Your task to perform on an android device: delete browsing data in the chrome app Image 0: 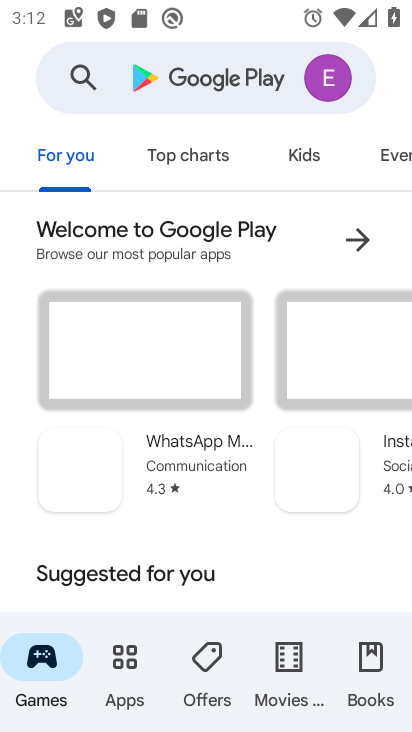
Step 0: press home button
Your task to perform on an android device: delete browsing data in the chrome app Image 1: 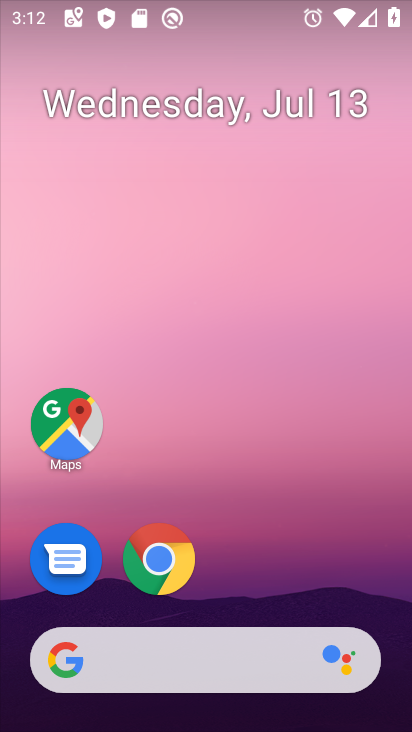
Step 1: drag from (370, 617) to (379, 291)
Your task to perform on an android device: delete browsing data in the chrome app Image 2: 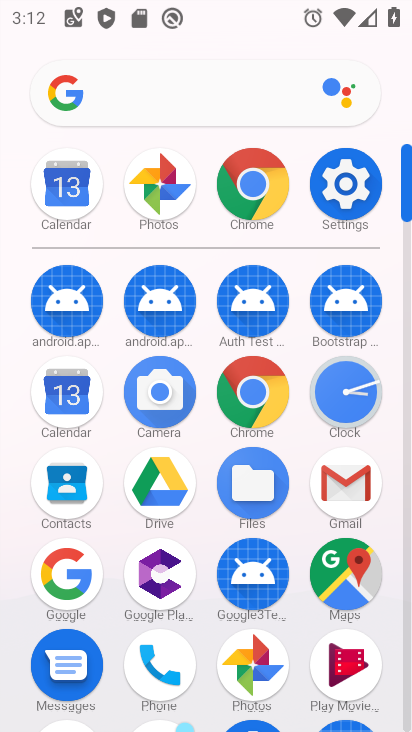
Step 2: click (260, 394)
Your task to perform on an android device: delete browsing data in the chrome app Image 3: 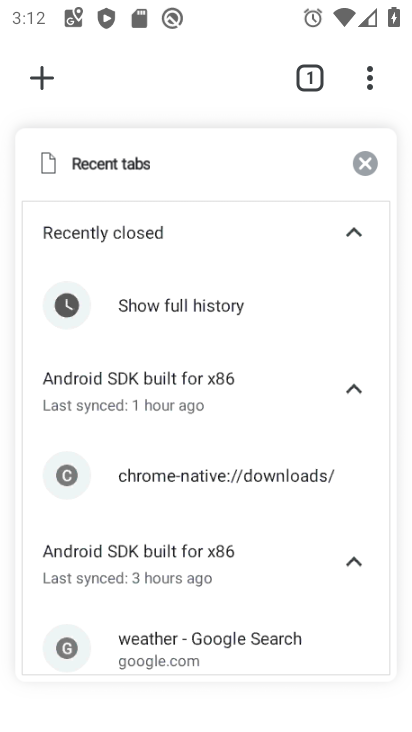
Step 3: press back button
Your task to perform on an android device: delete browsing data in the chrome app Image 4: 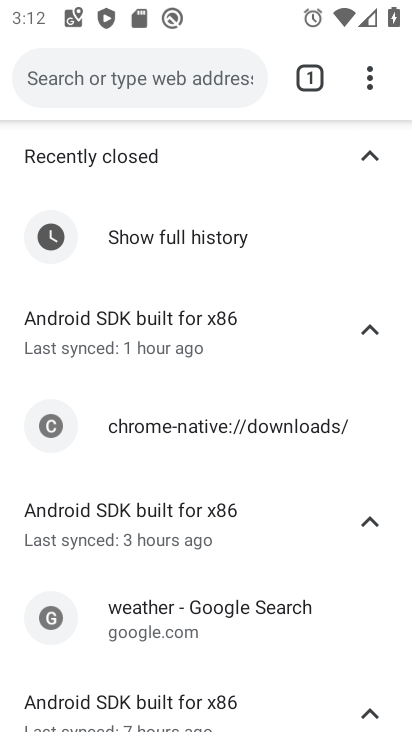
Step 4: click (365, 84)
Your task to perform on an android device: delete browsing data in the chrome app Image 5: 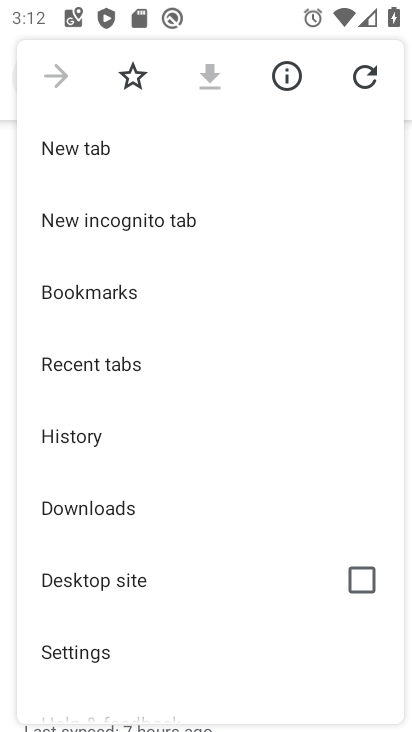
Step 5: drag from (313, 612) to (296, 456)
Your task to perform on an android device: delete browsing data in the chrome app Image 6: 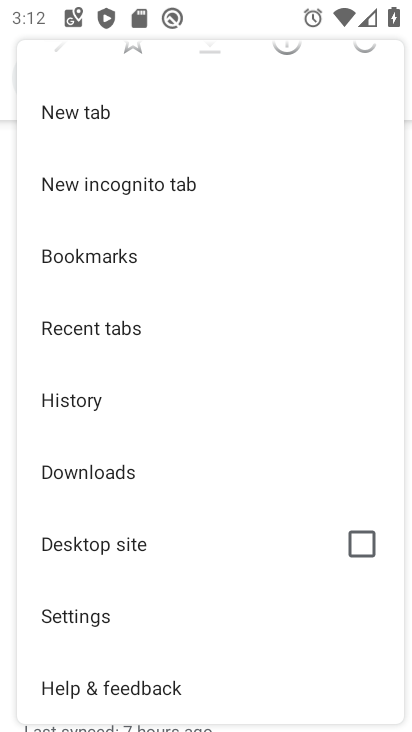
Step 6: click (127, 618)
Your task to perform on an android device: delete browsing data in the chrome app Image 7: 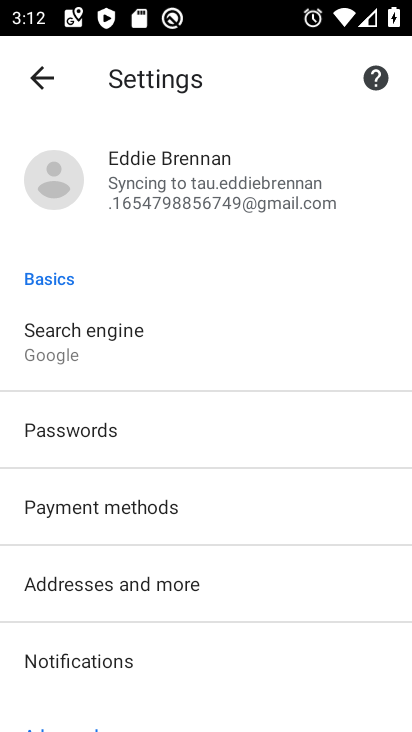
Step 7: drag from (332, 613) to (345, 519)
Your task to perform on an android device: delete browsing data in the chrome app Image 8: 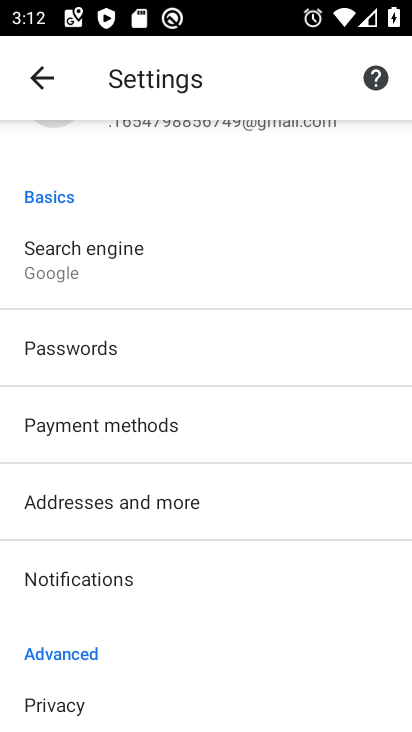
Step 8: drag from (338, 633) to (337, 526)
Your task to perform on an android device: delete browsing data in the chrome app Image 9: 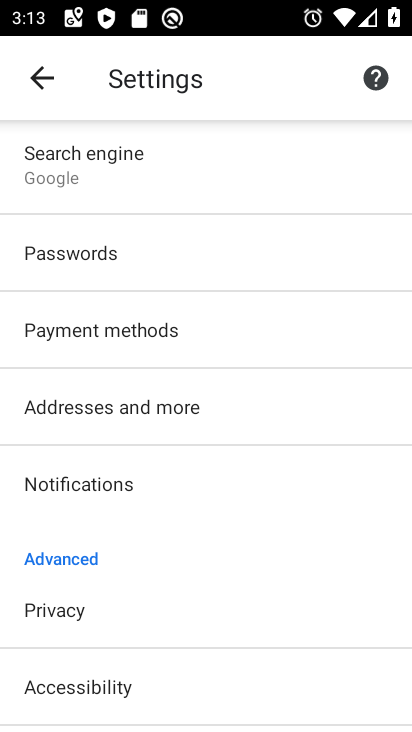
Step 9: drag from (332, 626) to (327, 530)
Your task to perform on an android device: delete browsing data in the chrome app Image 10: 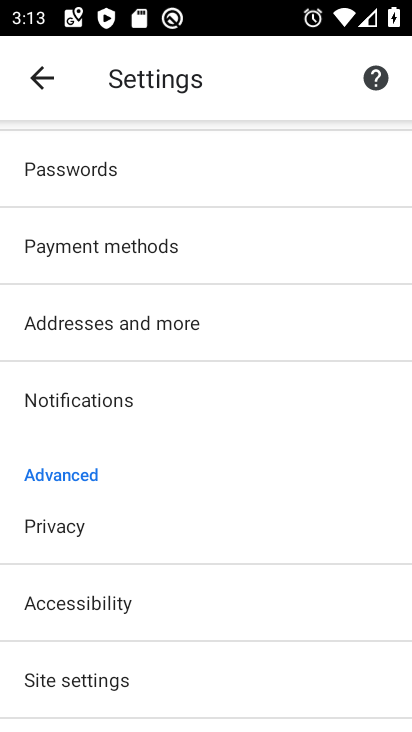
Step 10: drag from (329, 619) to (333, 508)
Your task to perform on an android device: delete browsing data in the chrome app Image 11: 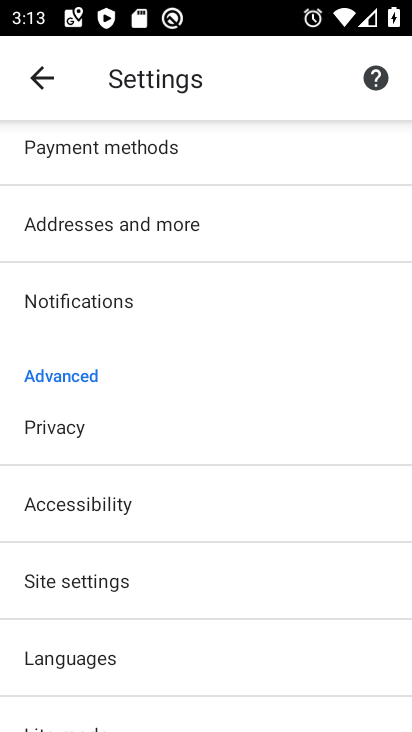
Step 11: click (266, 431)
Your task to perform on an android device: delete browsing data in the chrome app Image 12: 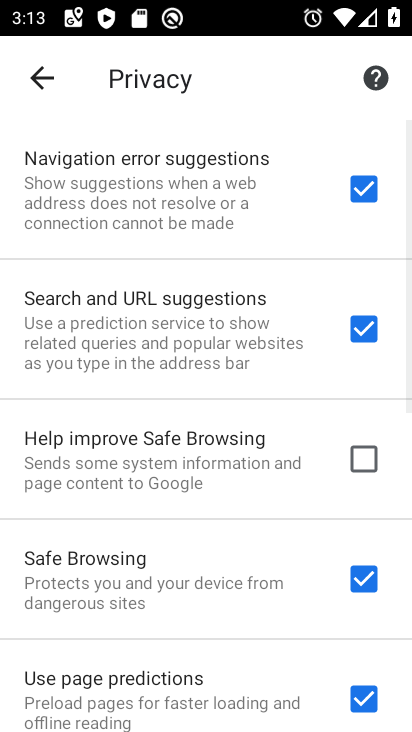
Step 12: drag from (301, 562) to (304, 471)
Your task to perform on an android device: delete browsing data in the chrome app Image 13: 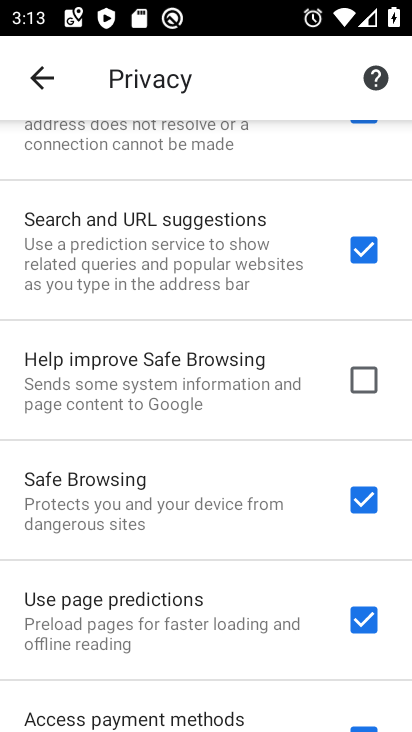
Step 13: drag from (298, 605) to (301, 453)
Your task to perform on an android device: delete browsing data in the chrome app Image 14: 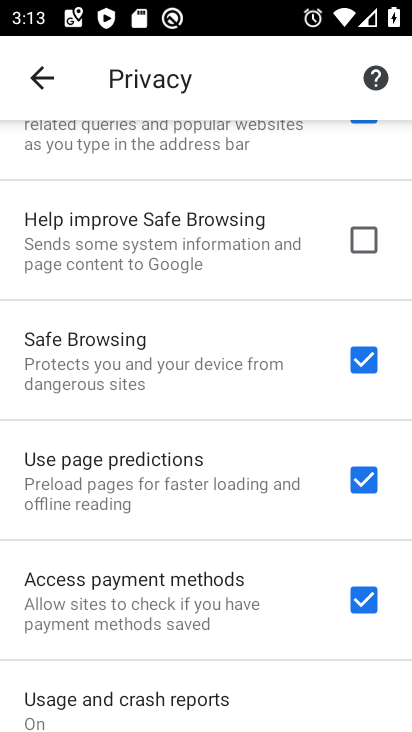
Step 14: drag from (299, 614) to (291, 460)
Your task to perform on an android device: delete browsing data in the chrome app Image 15: 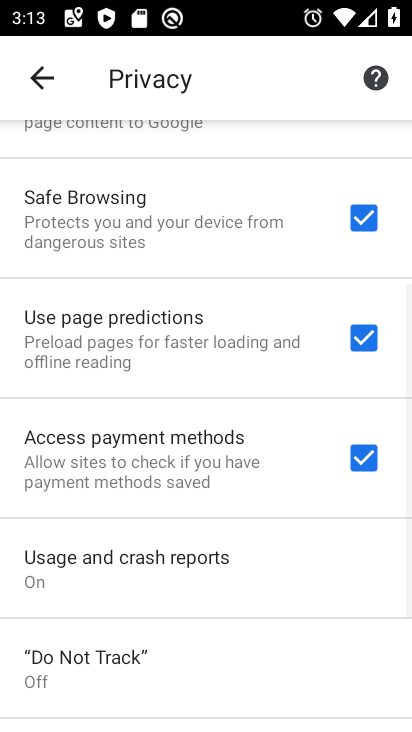
Step 15: drag from (289, 601) to (304, 410)
Your task to perform on an android device: delete browsing data in the chrome app Image 16: 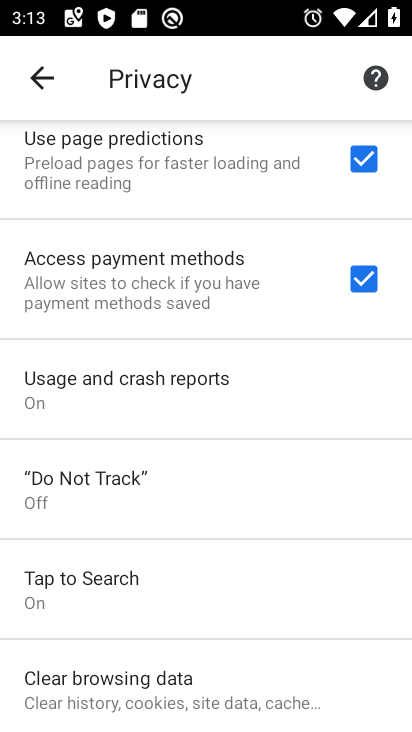
Step 16: drag from (313, 616) to (307, 469)
Your task to perform on an android device: delete browsing data in the chrome app Image 17: 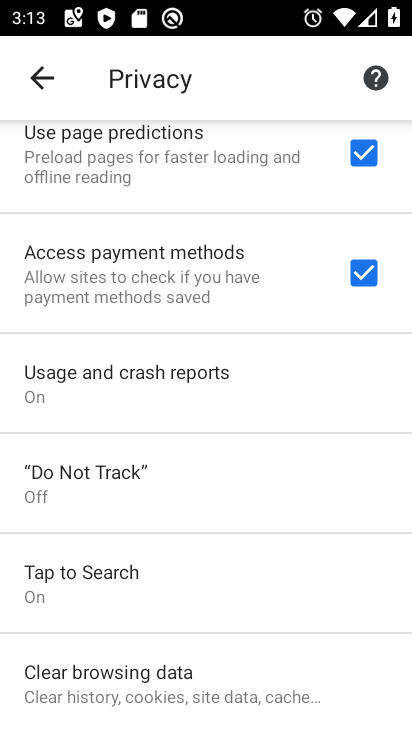
Step 17: click (300, 685)
Your task to perform on an android device: delete browsing data in the chrome app Image 18: 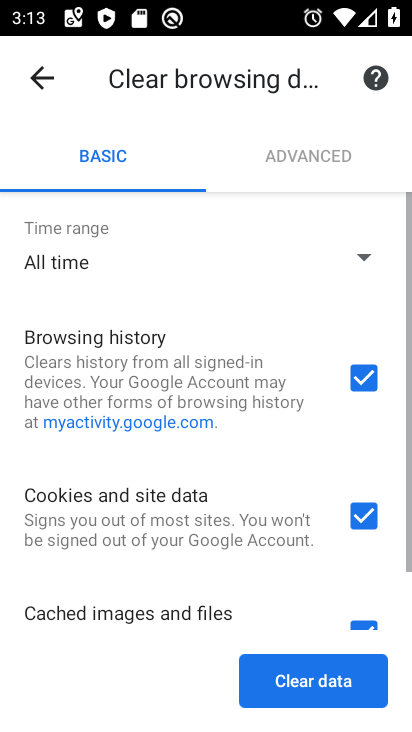
Step 18: click (300, 685)
Your task to perform on an android device: delete browsing data in the chrome app Image 19: 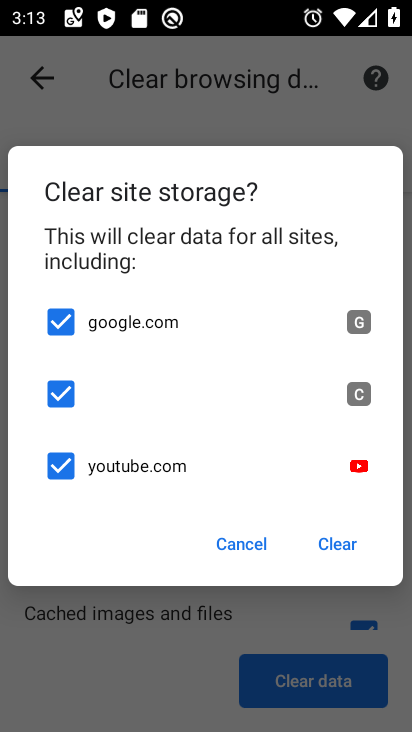
Step 19: click (327, 549)
Your task to perform on an android device: delete browsing data in the chrome app Image 20: 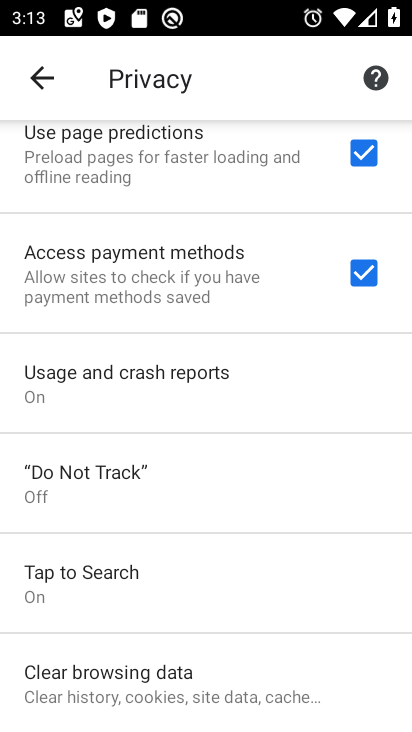
Step 20: task complete